Your task to perform on an android device: change the clock display to show seconds Image 0: 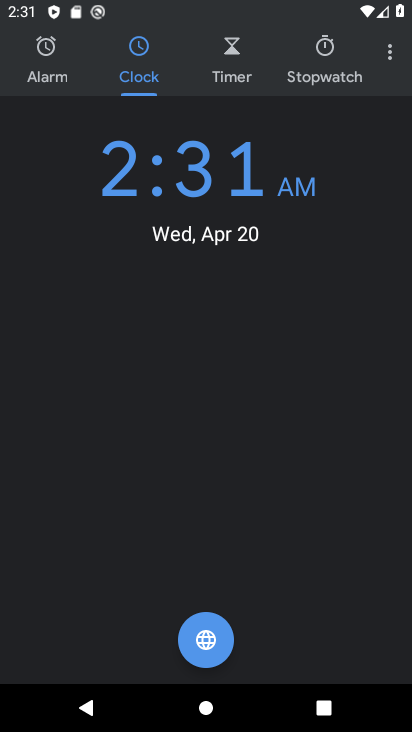
Step 0: click (391, 45)
Your task to perform on an android device: change the clock display to show seconds Image 1: 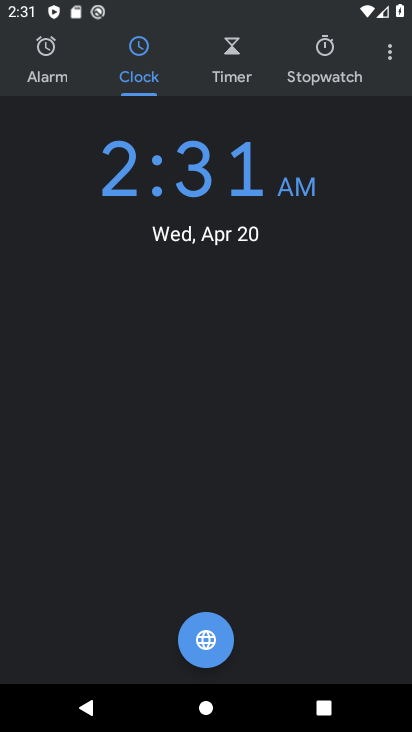
Step 1: click (386, 56)
Your task to perform on an android device: change the clock display to show seconds Image 2: 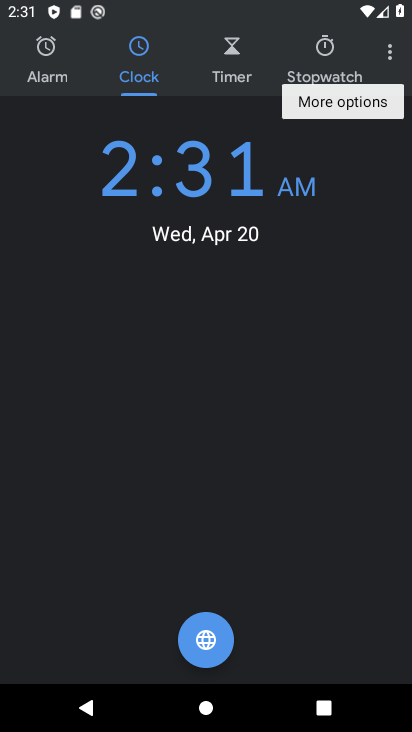
Step 2: click (390, 62)
Your task to perform on an android device: change the clock display to show seconds Image 3: 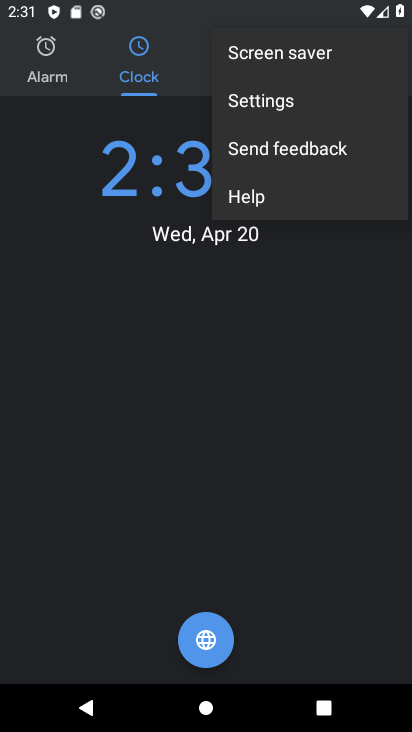
Step 3: click (326, 95)
Your task to perform on an android device: change the clock display to show seconds Image 4: 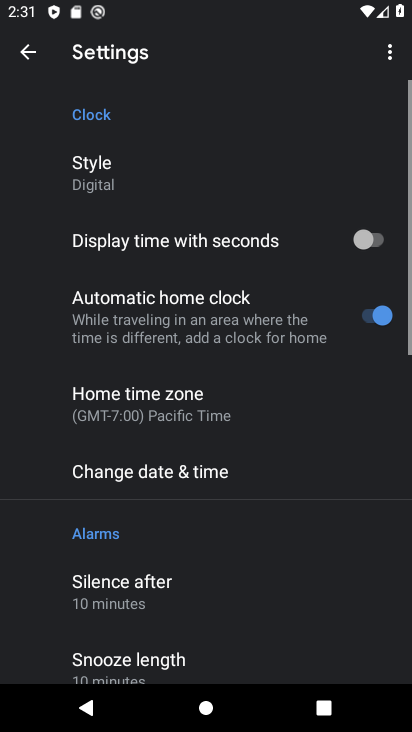
Step 4: click (376, 239)
Your task to perform on an android device: change the clock display to show seconds Image 5: 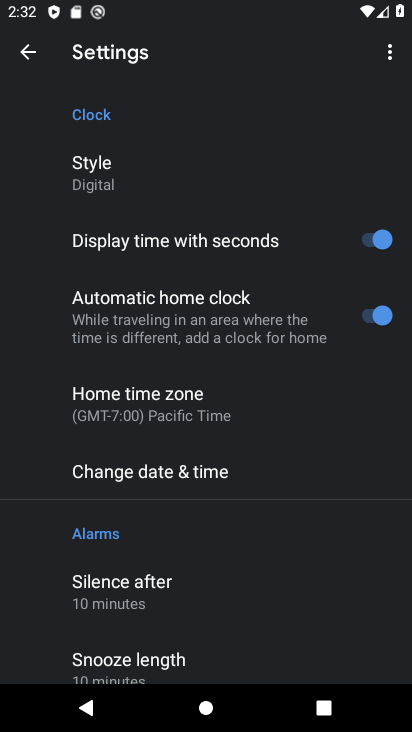
Step 5: task complete